Your task to perform on an android device: open chrome and create a bookmark for the current page Image 0: 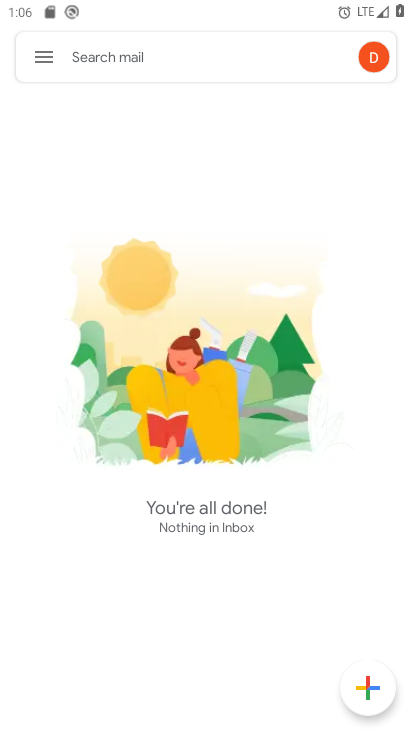
Step 0: press home button
Your task to perform on an android device: open chrome and create a bookmark for the current page Image 1: 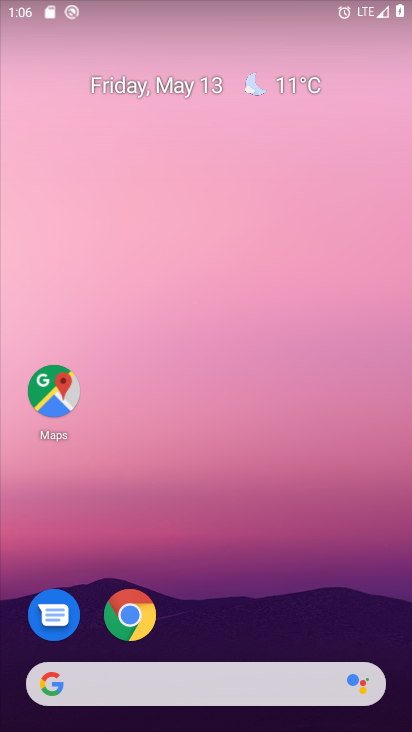
Step 1: click (125, 610)
Your task to perform on an android device: open chrome and create a bookmark for the current page Image 2: 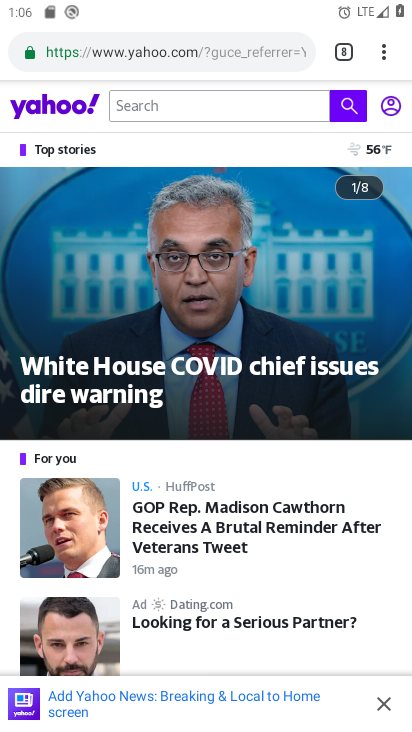
Step 2: task complete